Your task to perform on an android device: Go to calendar. Show me events next week Image 0: 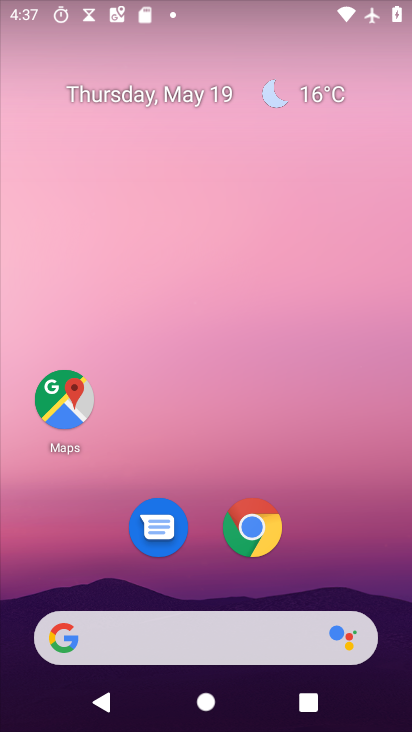
Step 0: click (145, 93)
Your task to perform on an android device: Go to calendar. Show me events next week Image 1: 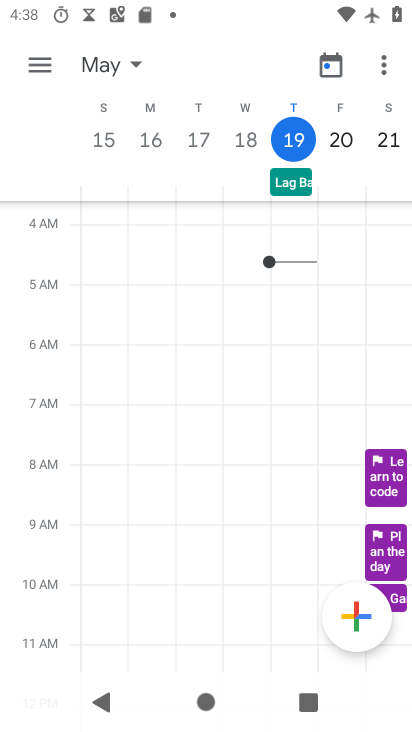
Step 1: click (128, 62)
Your task to perform on an android device: Go to calendar. Show me events next week Image 2: 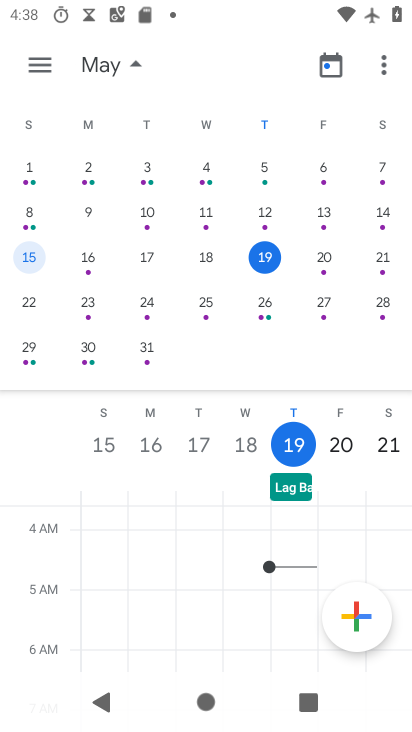
Step 2: click (29, 288)
Your task to perform on an android device: Go to calendar. Show me events next week Image 3: 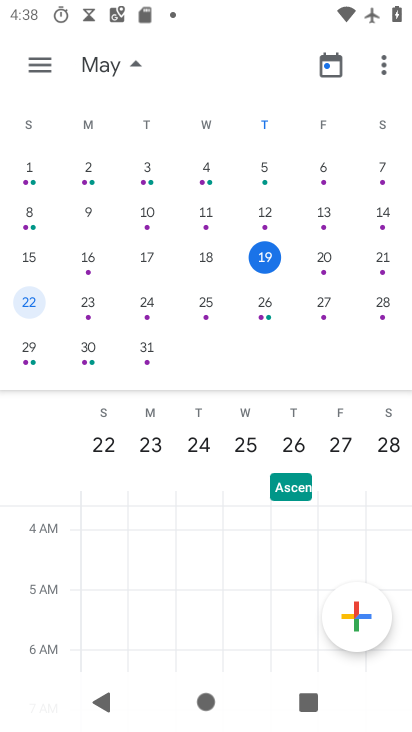
Step 3: task complete